Your task to perform on an android device: Search for duracell triple a on amazon, select the first entry, and add it to the cart. Image 0: 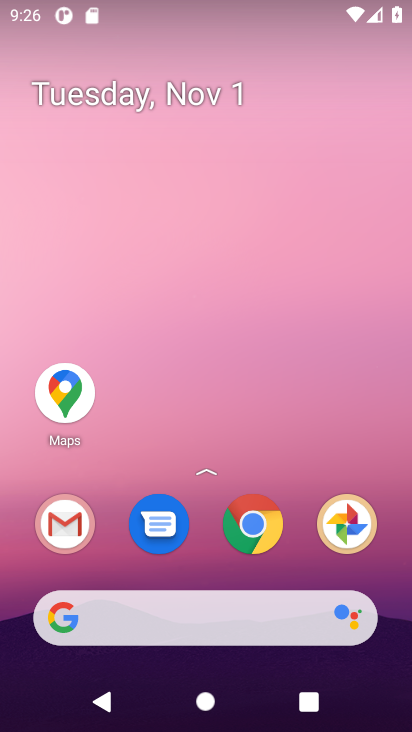
Step 0: press home button
Your task to perform on an android device: Search for duracell triple a on amazon, select the first entry, and add it to the cart. Image 1: 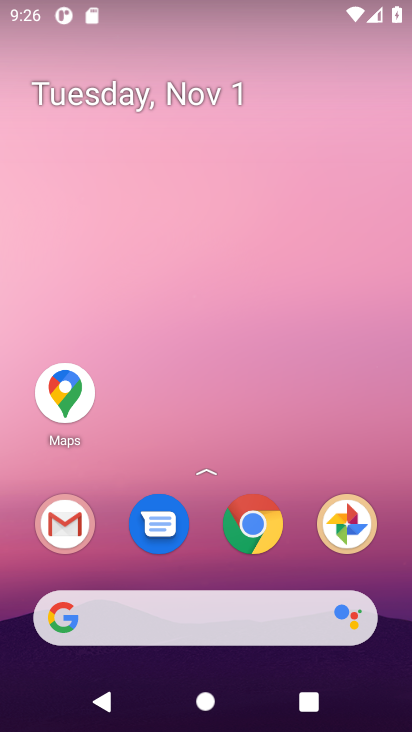
Step 1: click (87, 622)
Your task to perform on an android device: Search for duracell triple a on amazon, select the first entry, and add it to the cart. Image 2: 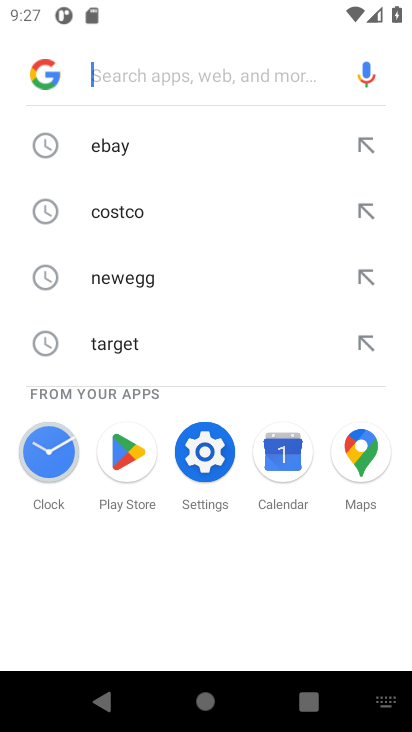
Step 2: type "amazon"
Your task to perform on an android device: Search for duracell triple a on amazon, select the first entry, and add it to the cart. Image 3: 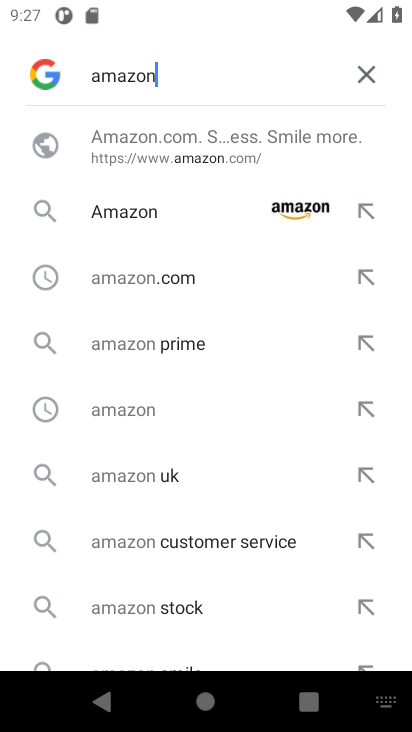
Step 3: press enter
Your task to perform on an android device: Search for duracell triple a on amazon, select the first entry, and add it to the cart. Image 4: 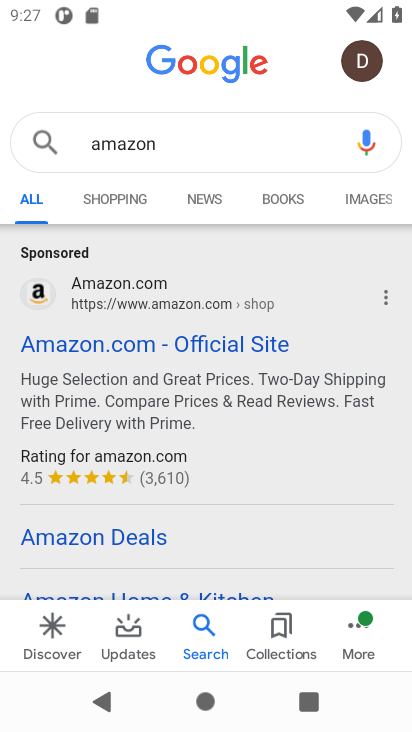
Step 4: click (123, 345)
Your task to perform on an android device: Search for duracell triple a on amazon, select the first entry, and add it to the cart. Image 5: 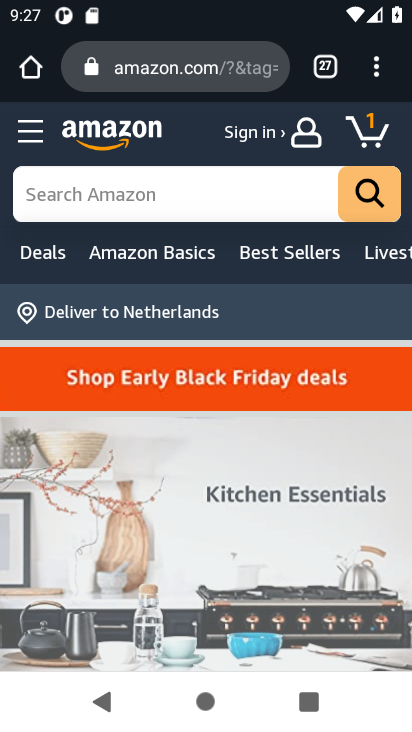
Step 5: click (107, 196)
Your task to perform on an android device: Search for duracell triple a on amazon, select the first entry, and add it to the cart. Image 6: 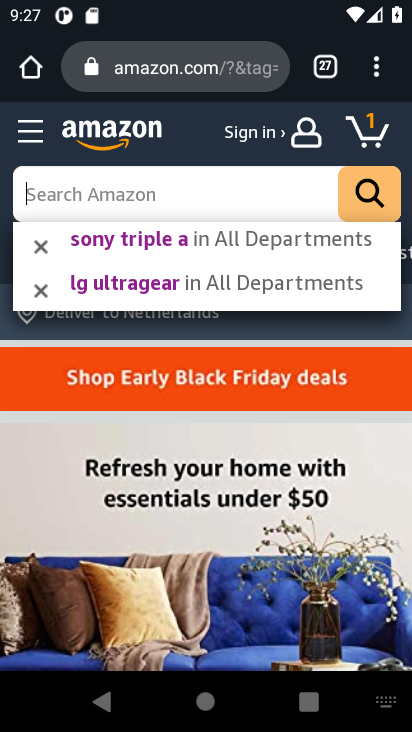
Step 6: type "duracell triple a"
Your task to perform on an android device: Search for duracell triple a on amazon, select the first entry, and add it to the cart. Image 7: 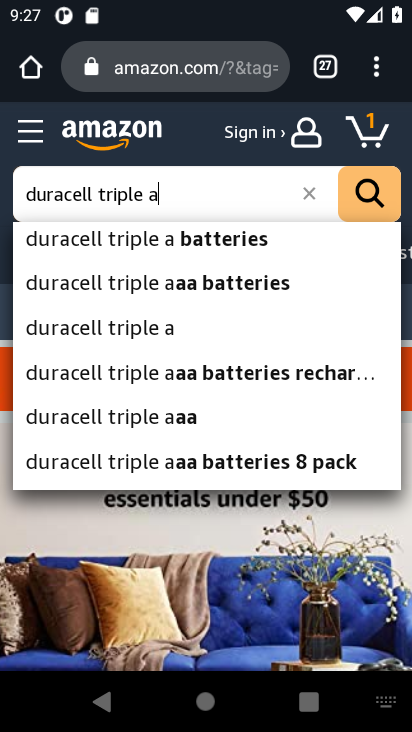
Step 7: press enter
Your task to perform on an android device: Search for duracell triple a on amazon, select the first entry, and add it to the cart. Image 8: 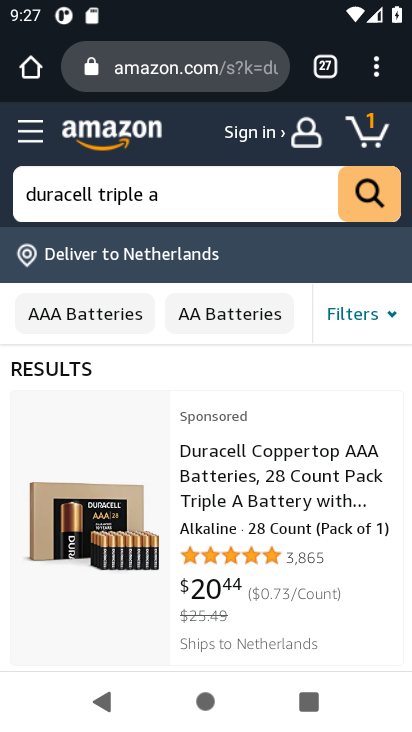
Step 8: drag from (258, 598) to (282, 445)
Your task to perform on an android device: Search for duracell triple a on amazon, select the first entry, and add it to the cart. Image 9: 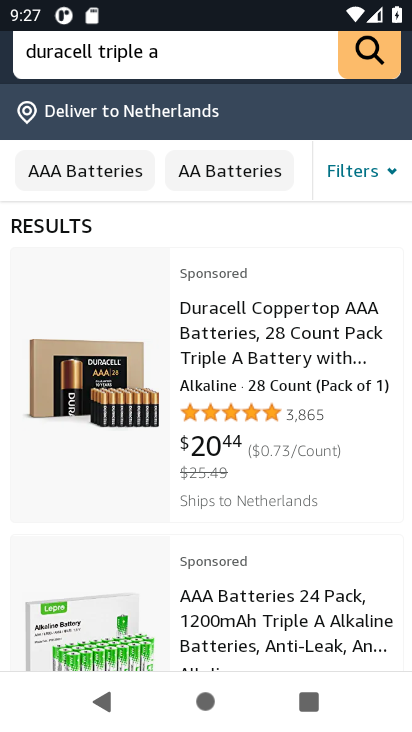
Step 9: click (255, 343)
Your task to perform on an android device: Search for duracell triple a on amazon, select the first entry, and add it to the cart. Image 10: 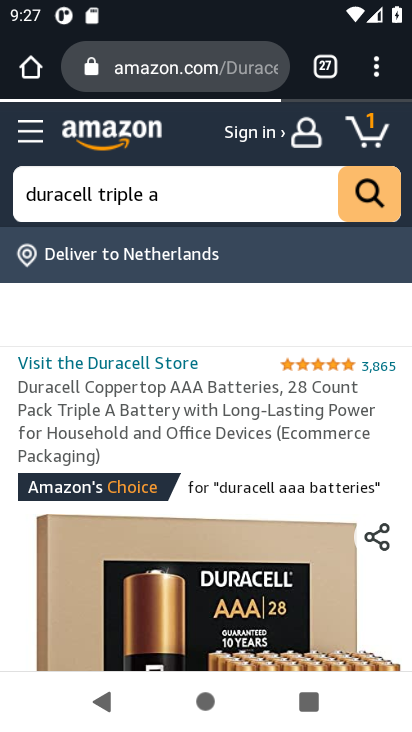
Step 10: drag from (210, 626) to (243, 342)
Your task to perform on an android device: Search for duracell triple a on amazon, select the first entry, and add it to the cart. Image 11: 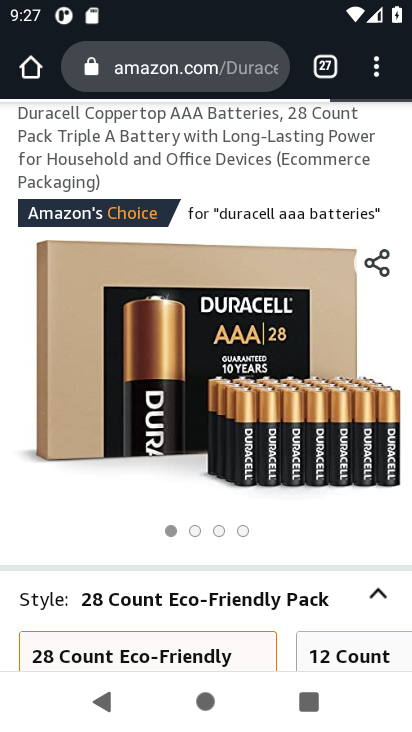
Step 11: drag from (239, 575) to (238, 189)
Your task to perform on an android device: Search for duracell triple a on amazon, select the first entry, and add it to the cart. Image 12: 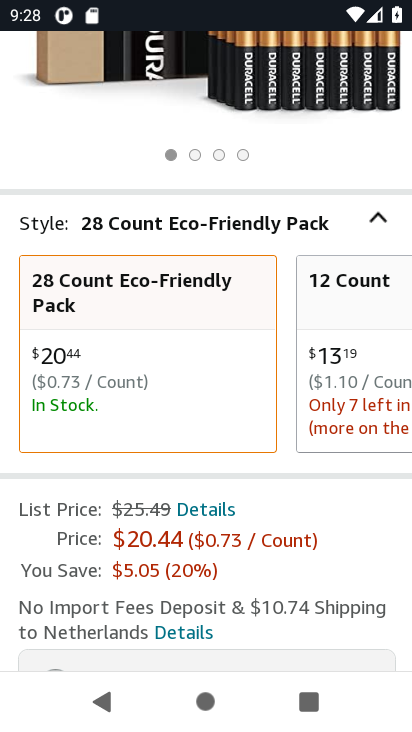
Step 12: drag from (244, 579) to (247, 264)
Your task to perform on an android device: Search for duracell triple a on amazon, select the first entry, and add it to the cart. Image 13: 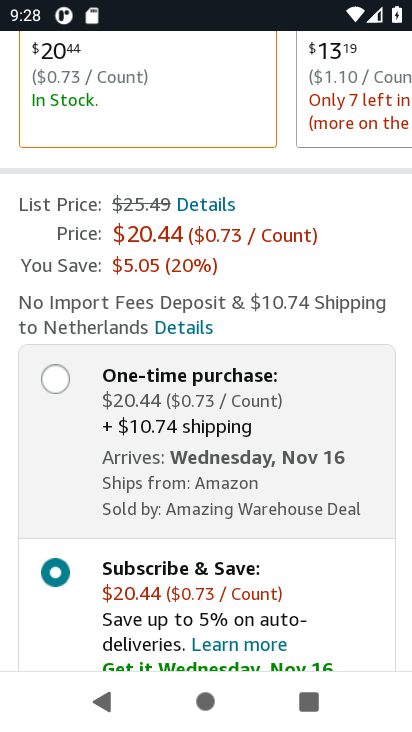
Step 13: drag from (231, 601) to (227, 230)
Your task to perform on an android device: Search for duracell triple a on amazon, select the first entry, and add it to the cart. Image 14: 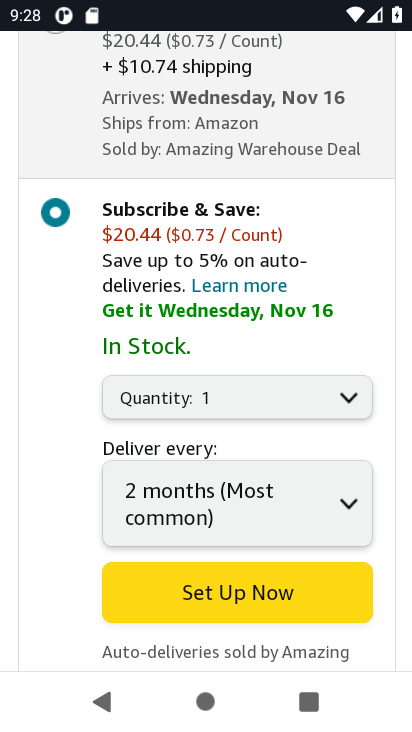
Step 14: drag from (126, 576) to (125, 287)
Your task to perform on an android device: Search for duracell triple a on amazon, select the first entry, and add it to the cart. Image 15: 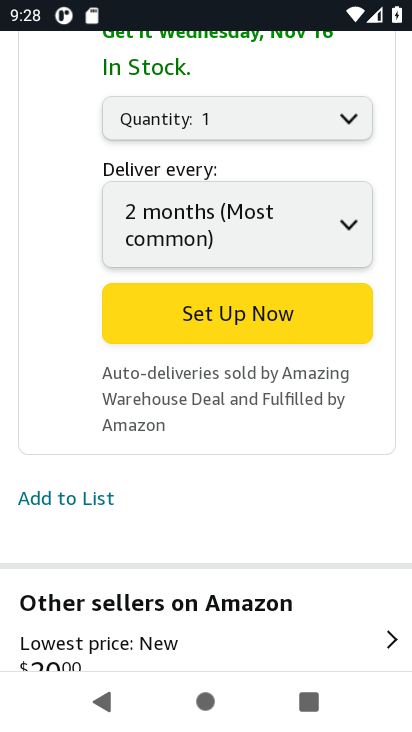
Step 15: click (257, 312)
Your task to perform on an android device: Search for duracell triple a on amazon, select the first entry, and add it to the cart. Image 16: 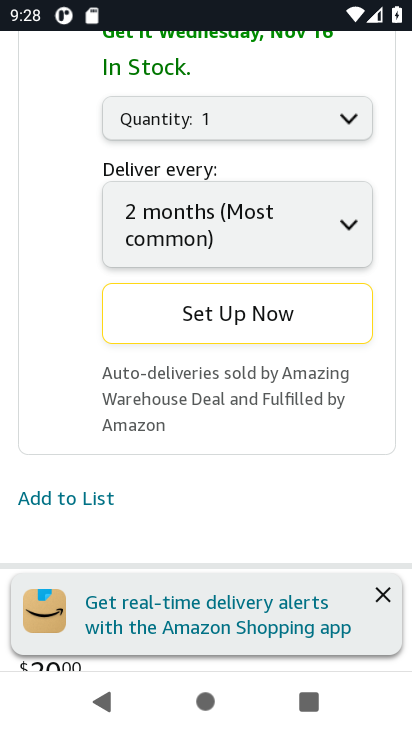
Step 16: task complete